Your task to perform on an android device: toggle translation in the chrome app Image 0: 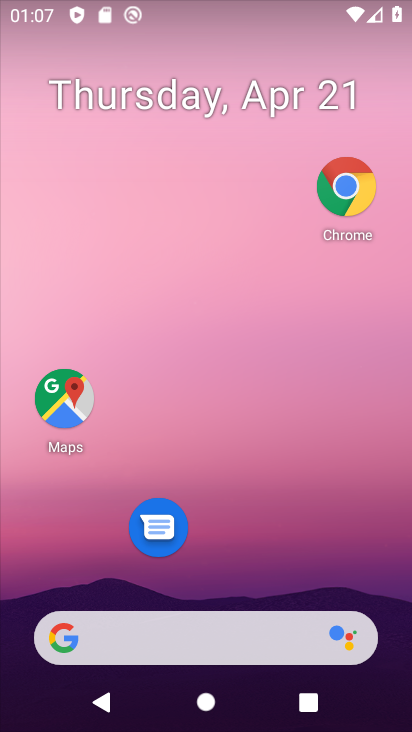
Step 0: drag from (258, 283) to (278, 52)
Your task to perform on an android device: toggle translation in the chrome app Image 1: 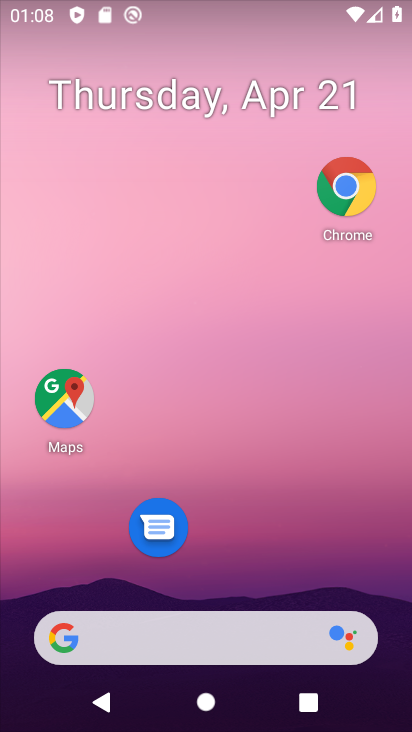
Step 1: drag from (228, 589) to (321, 74)
Your task to perform on an android device: toggle translation in the chrome app Image 2: 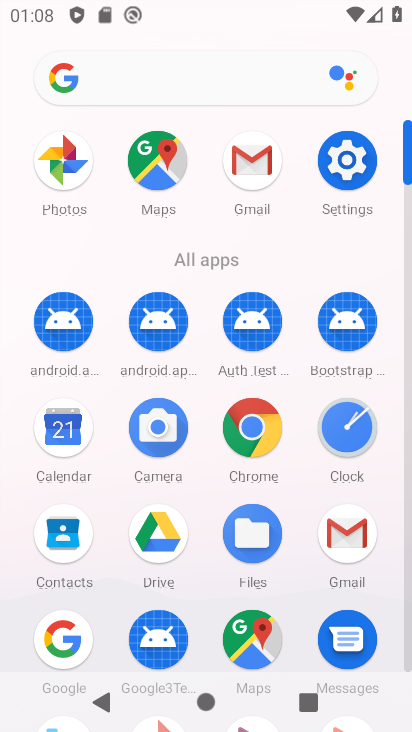
Step 2: click (263, 429)
Your task to perform on an android device: toggle translation in the chrome app Image 3: 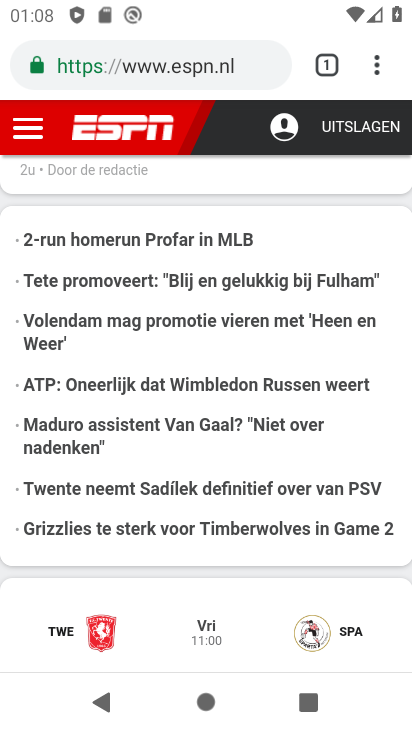
Step 3: drag from (224, 289) to (317, 591)
Your task to perform on an android device: toggle translation in the chrome app Image 4: 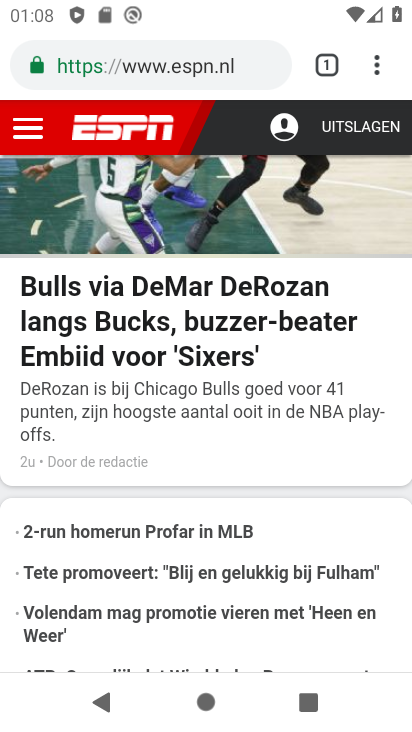
Step 4: drag from (181, 623) to (286, 393)
Your task to perform on an android device: toggle translation in the chrome app Image 5: 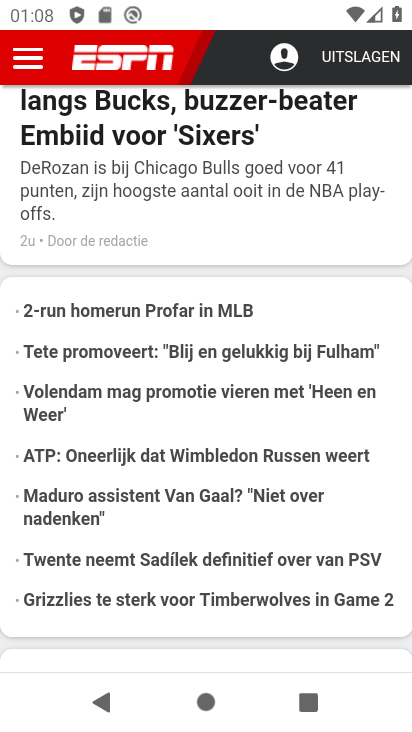
Step 5: drag from (252, 358) to (270, 507)
Your task to perform on an android device: toggle translation in the chrome app Image 6: 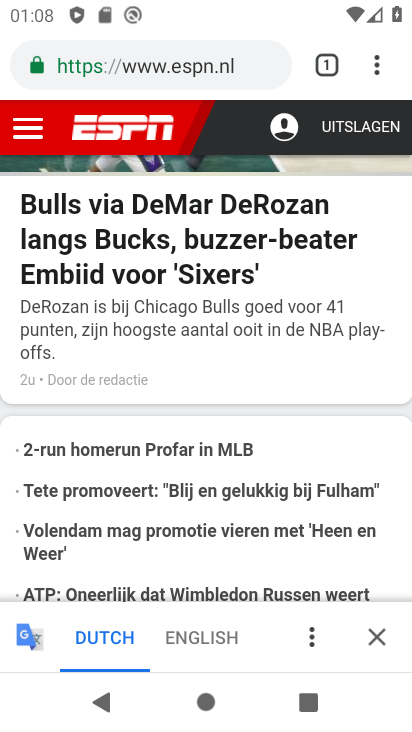
Step 6: drag from (379, 58) to (222, 574)
Your task to perform on an android device: toggle translation in the chrome app Image 7: 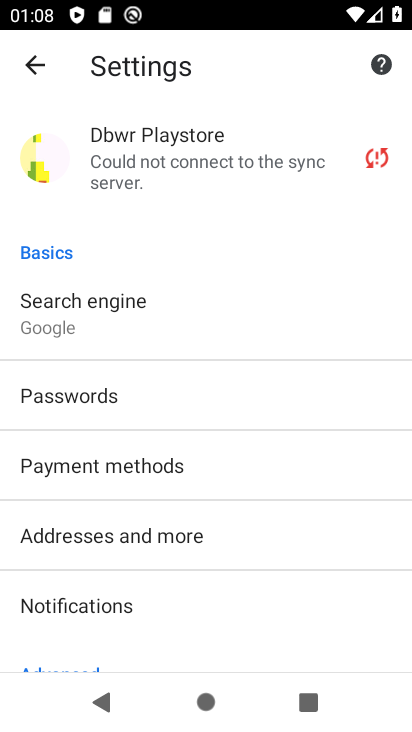
Step 7: drag from (207, 449) to (230, 201)
Your task to perform on an android device: toggle translation in the chrome app Image 8: 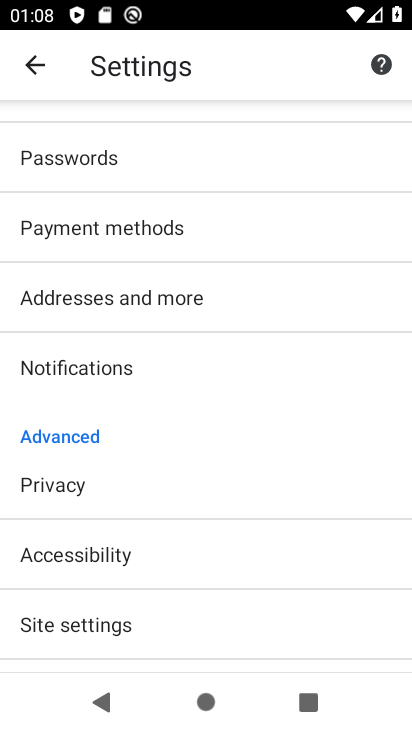
Step 8: drag from (132, 602) to (282, 154)
Your task to perform on an android device: toggle translation in the chrome app Image 9: 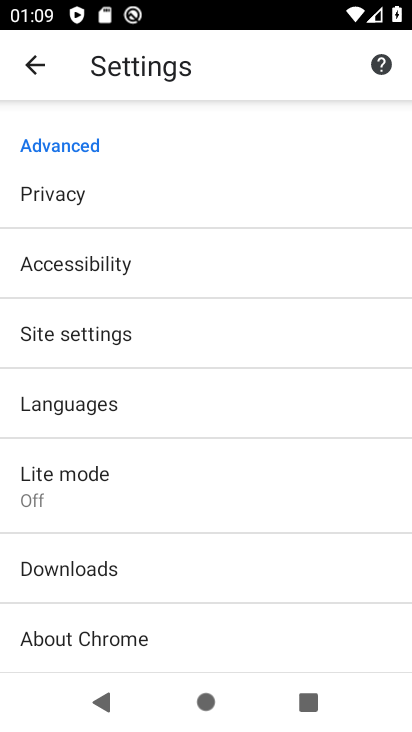
Step 9: click (137, 484)
Your task to perform on an android device: toggle translation in the chrome app Image 10: 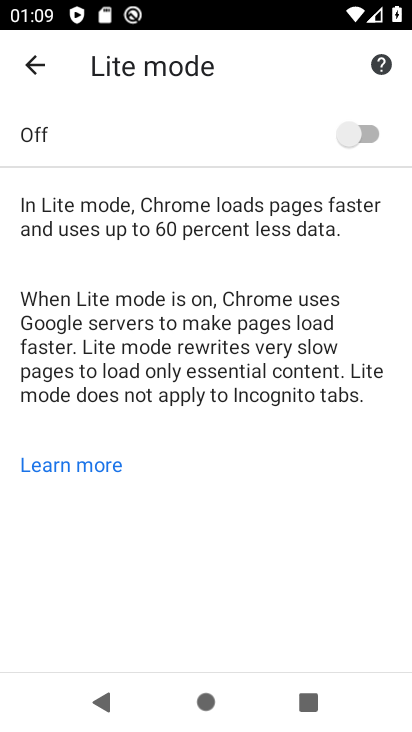
Step 10: click (29, 62)
Your task to perform on an android device: toggle translation in the chrome app Image 11: 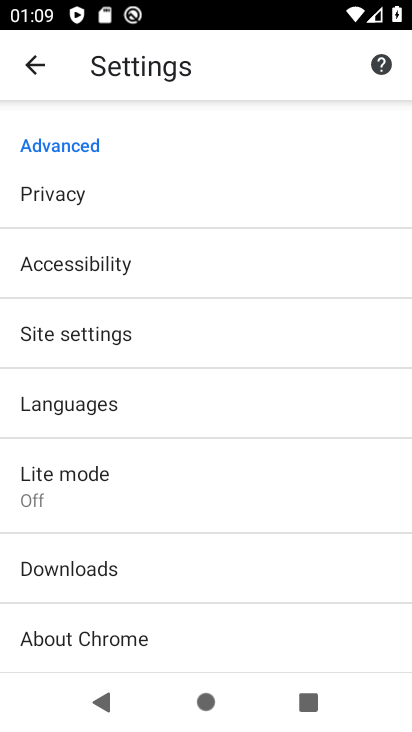
Step 11: drag from (98, 469) to (197, 210)
Your task to perform on an android device: toggle translation in the chrome app Image 12: 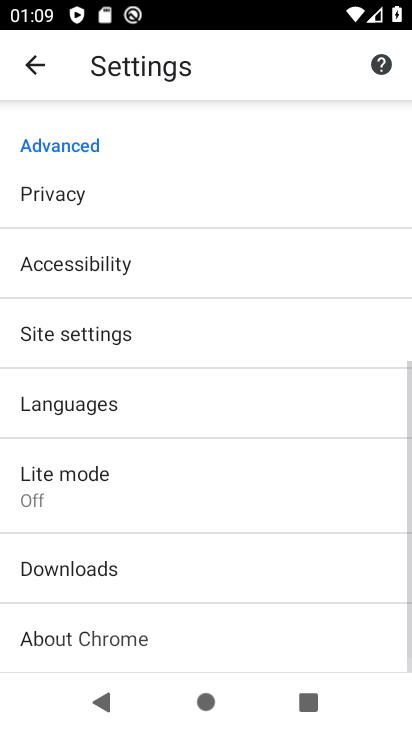
Step 12: click (157, 407)
Your task to perform on an android device: toggle translation in the chrome app Image 13: 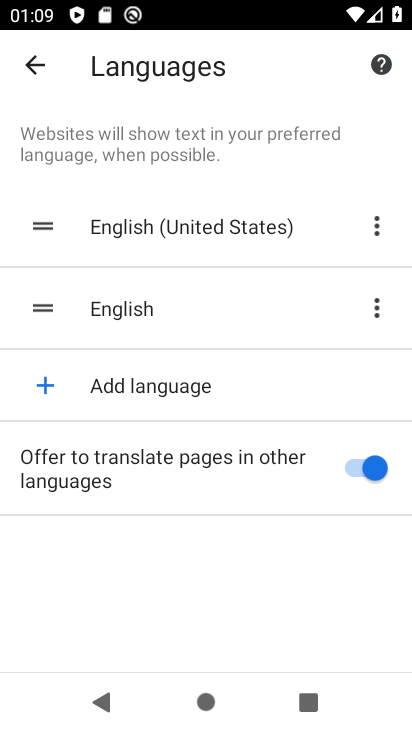
Step 13: click (340, 443)
Your task to perform on an android device: toggle translation in the chrome app Image 14: 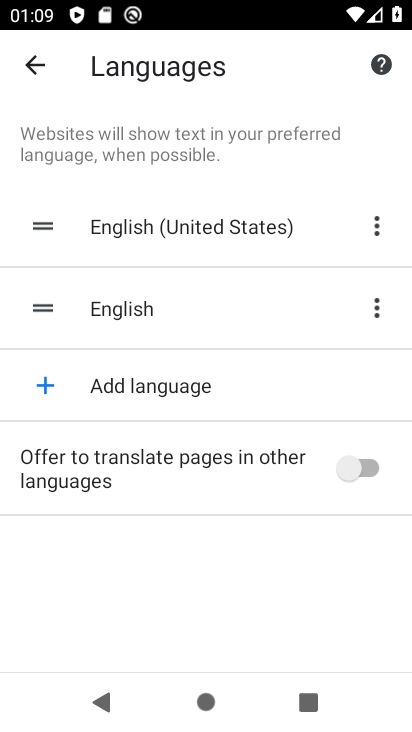
Step 14: task complete